Your task to perform on an android device: Show me popular videos on Youtube Image 0: 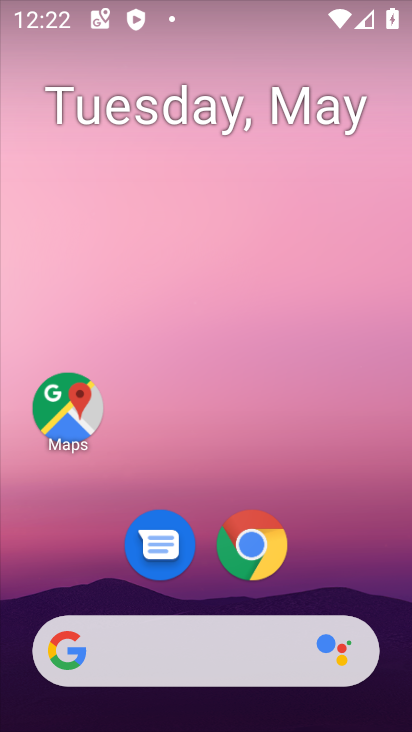
Step 0: drag from (190, 589) to (261, 178)
Your task to perform on an android device: Show me popular videos on Youtube Image 1: 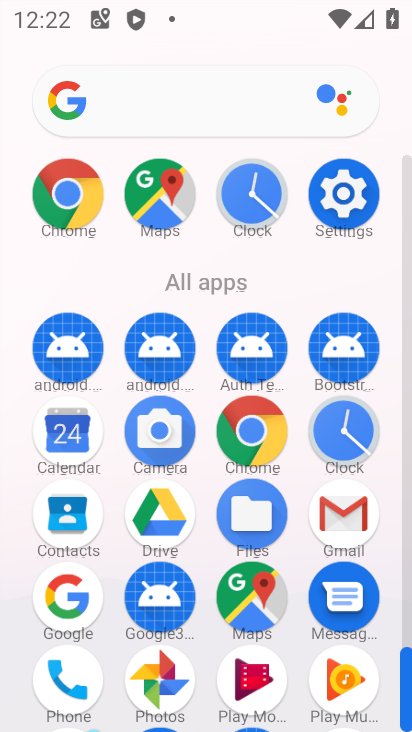
Step 1: drag from (206, 658) to (287, 226)
Your task to perform on an android device: Show me popular videos on Youtube Image 2: 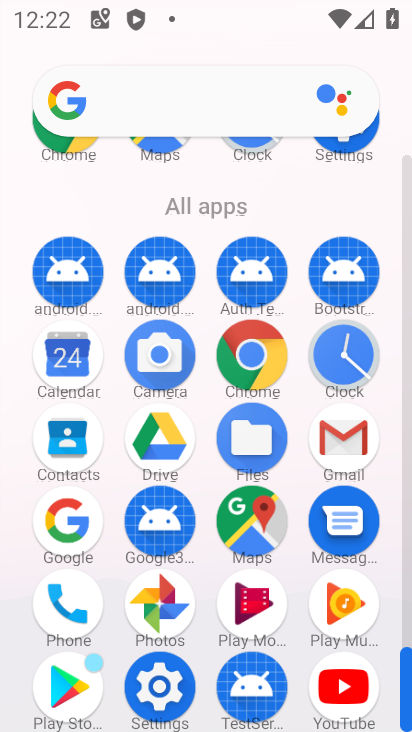
Step 2: click (334, 673)
Your task to perform on an android device: Show me popular videos on Youtube Image 3: 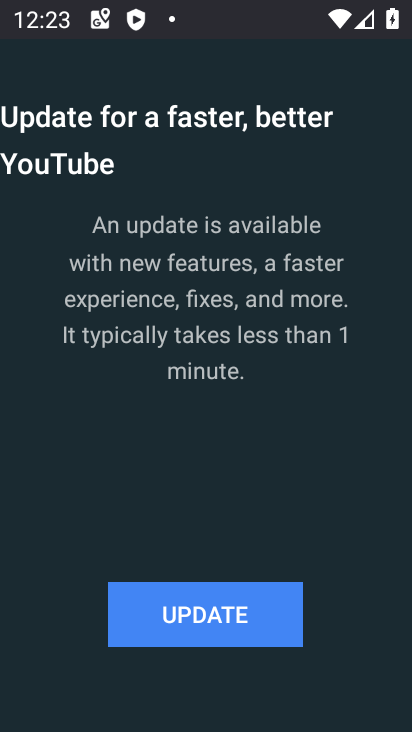
Step 3: click (248, 623)
Your task to perform on an android device: Show me popular videos on Youtube Image 4: 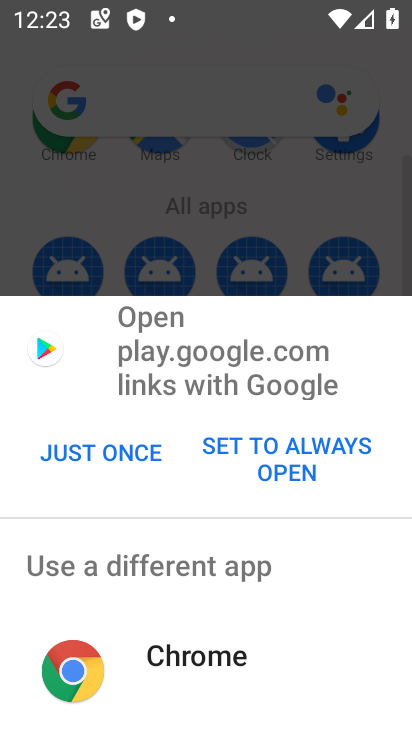
Step 4: click (82, 449)
Your task to perform on an android device: Show me popular videos on Youtube Image 5: 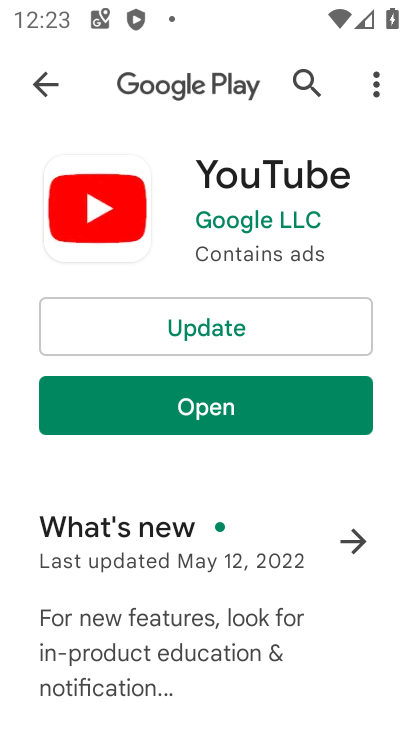
Step 5: click (63, 384)
Your task to perform on an android device: Show me popular videos on Youtube Image 6: 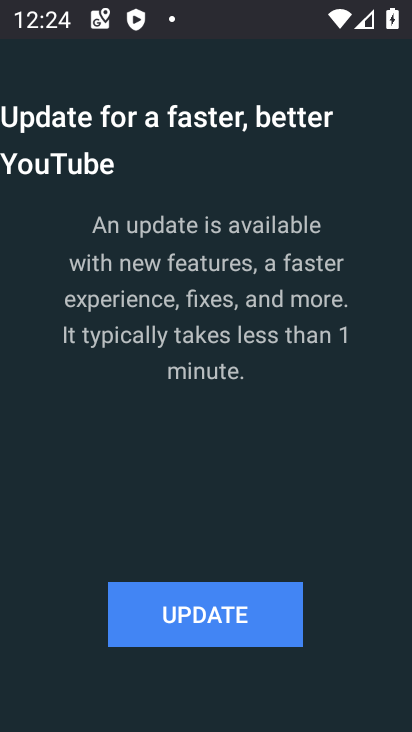
Step 6: click (207, 608)
Your task to perform on an android device: Show me popular videos on Youtube Image 7: 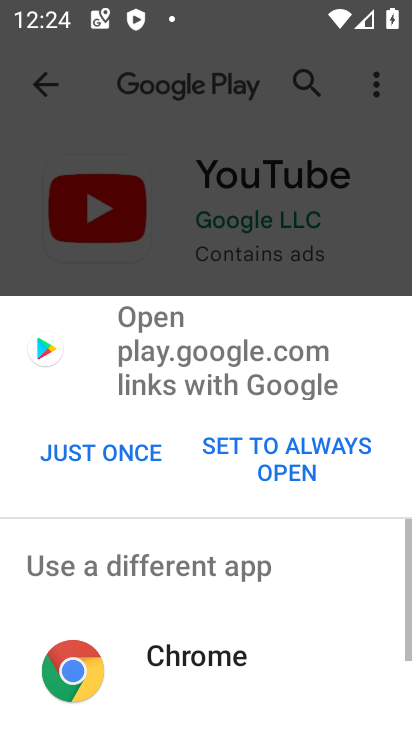
Step 7: click (113, 462)
Your task to perform on an android device: Show me popular videos on Youtube Image 8: 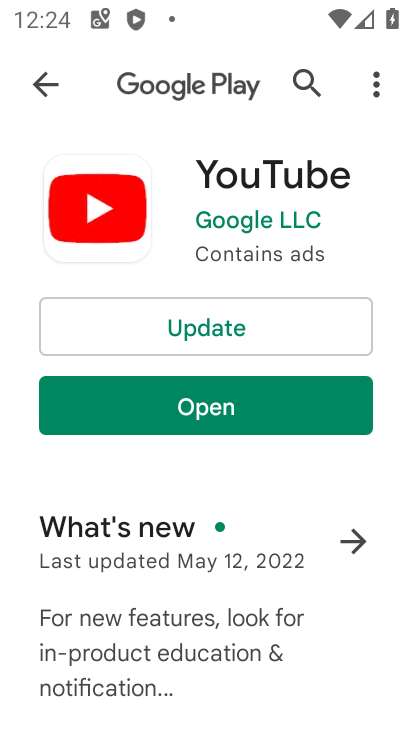
Step 8: click (211, 341)
Your task to perform on an android device: Show me popular videos on Youtube Image 9: 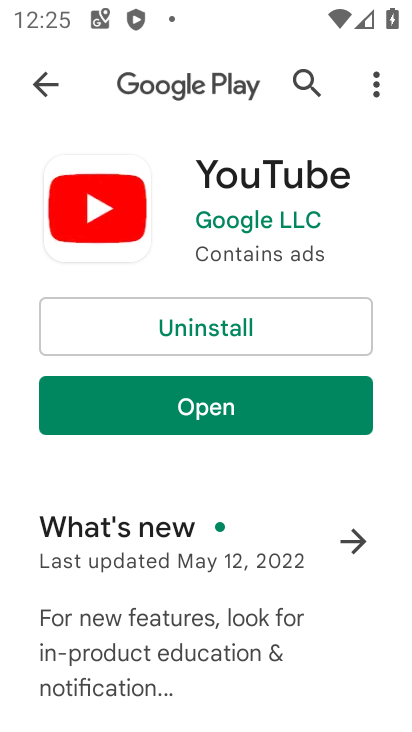
Step 9: click (260, 423)
Your task to perform on an android device: Show me popular videos on Youtube Image 10: 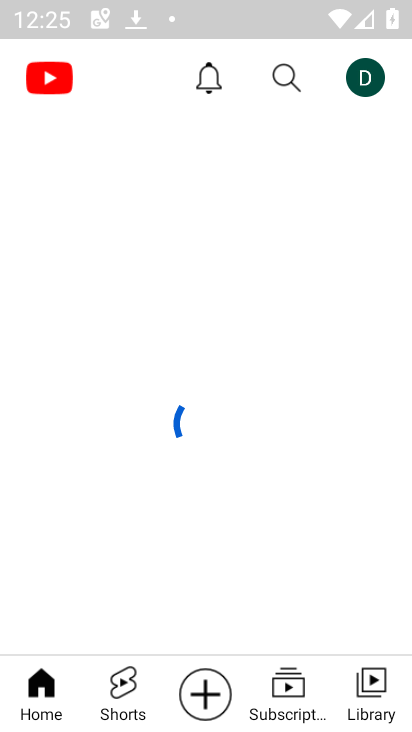
Step 10: click (260, 423)
Your task to perform on an android device: Show me popular videos on Youtube Image 11: 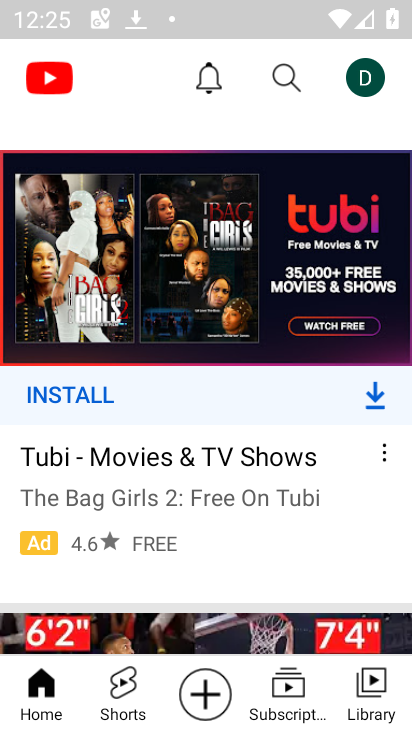
Step 11: drag from (94, 125) to (141, 665)
Your task to perform on an android device: Show me popular videos on Youtube Image 12: 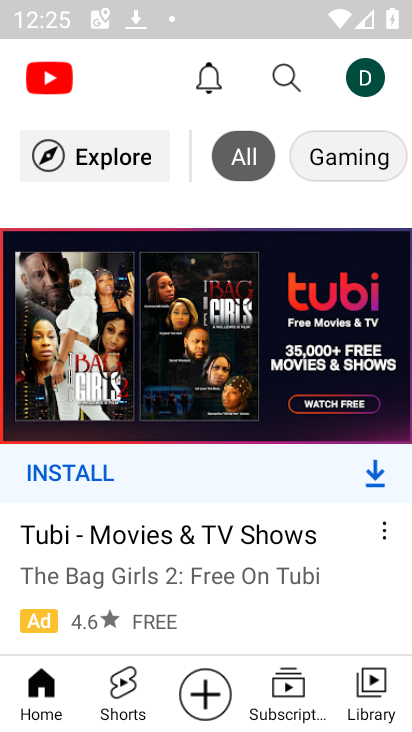
Step 12: click (114, 147)
Your task to perform on an android device: Show me popular videos on Youtube Image 13: 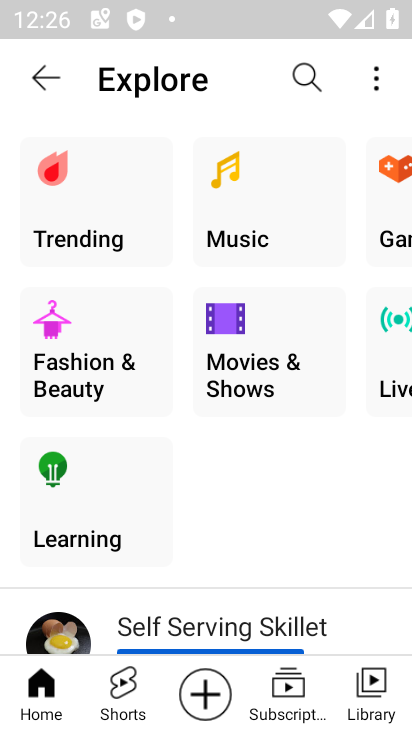
Step 13: drag from (214, 576) to (220, 369)
Your task to perform on an android device: Show me popular videos on Youtube Image 14: 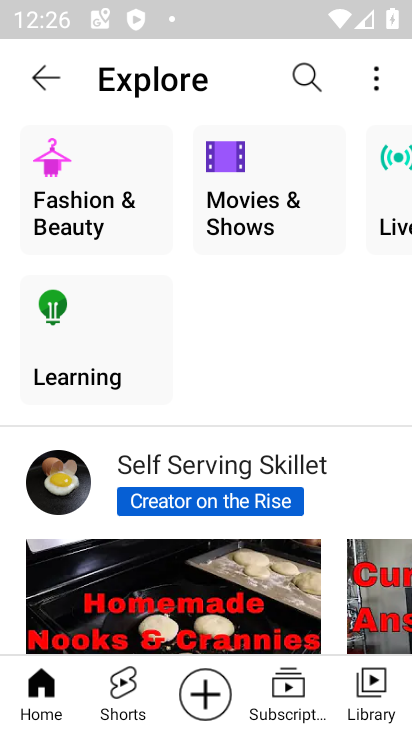
Step 14: drag from (260, 278) to (293, 641)
Your task to perform on an android device: Show me popular videos on Youtube Image 15: 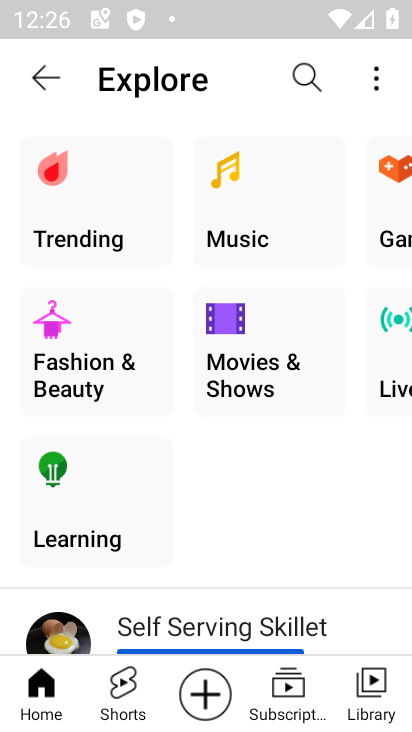
Step 15: click (90, 179)
Your task to perform on an android device: Show me popular videos on Youtube Image 16: 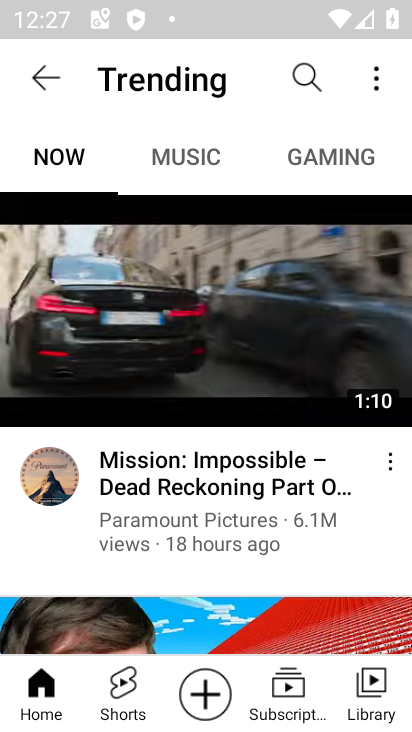
Step 16: task complete